Your task to perform on an android device: Search for vegetarian restaurants on Maps Image 0: 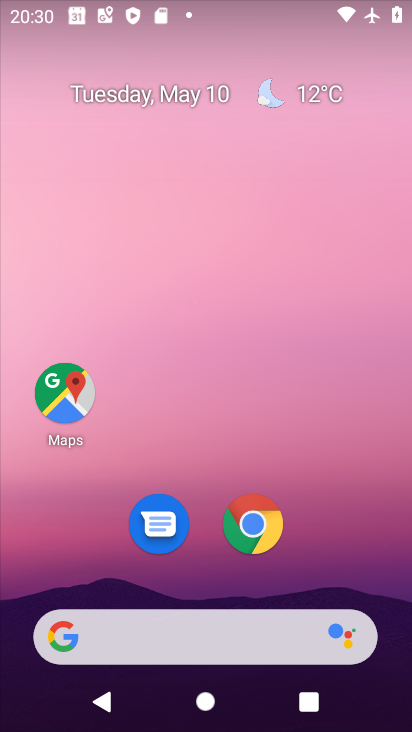
Step 0: click (54, 410)
Your task to perform on an android device: Search for vegetarian restaurants on Maps Image 1: 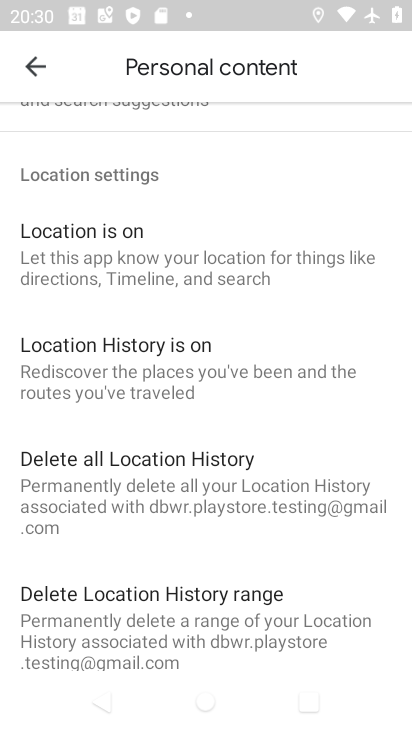
Step 1: click (31, 64)
Your task to perform on an android device: Search for vegetarian restaurants on Maps Image 2: 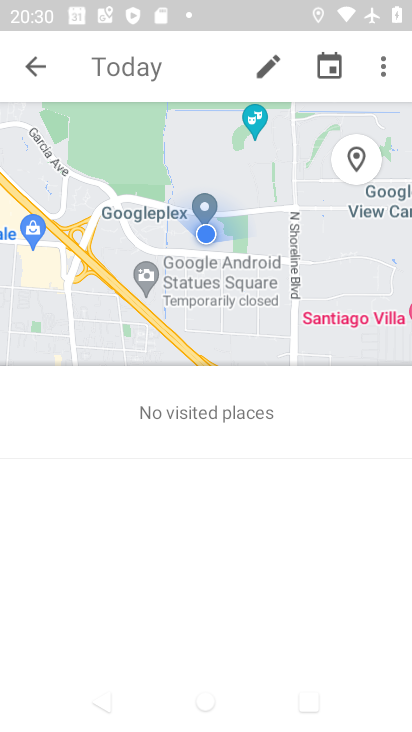
Step 2: click (31, 64)
Your task to perform on an android device: Search for vegetarian restaurants on Maps Image 3: 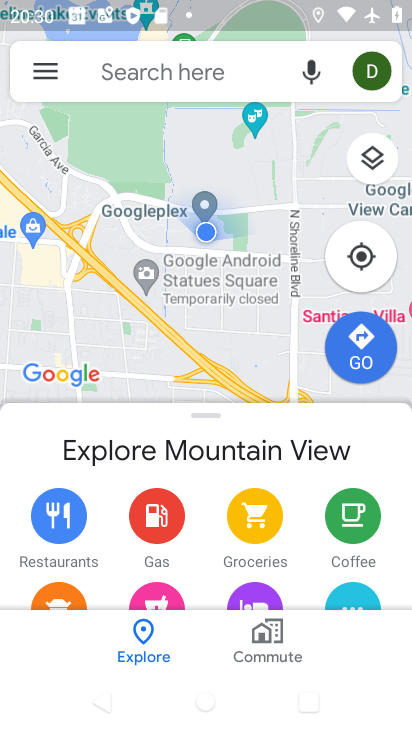
Step 3: click (85, 63)
Your task to perform on an android device: Search for vegetarian restaurants on Maps Image 4: 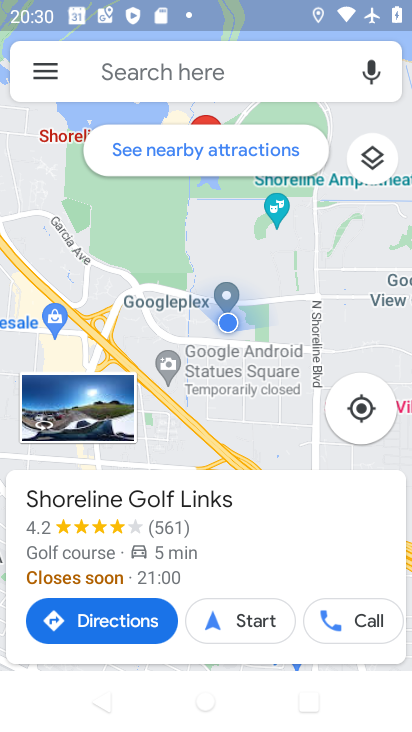
Step 4: click (115, 63)
Your task to perform on an android device: Search for vegetarian restaurants on Maps Image 5: 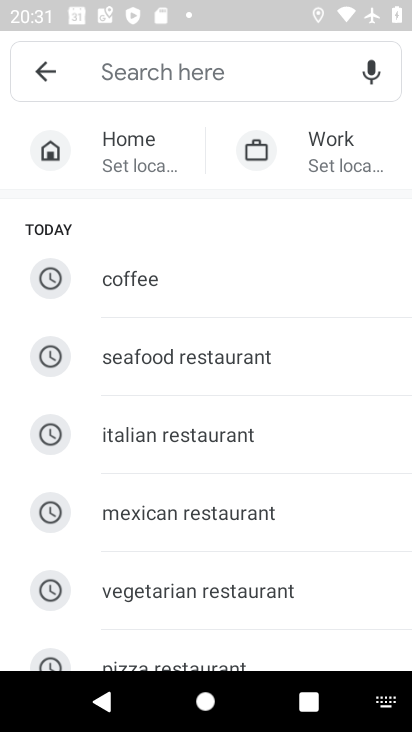
Step 5: click (200, 581)
Your task to perform on an android device: Search for vegetarian restaurants on Maps Image 6: 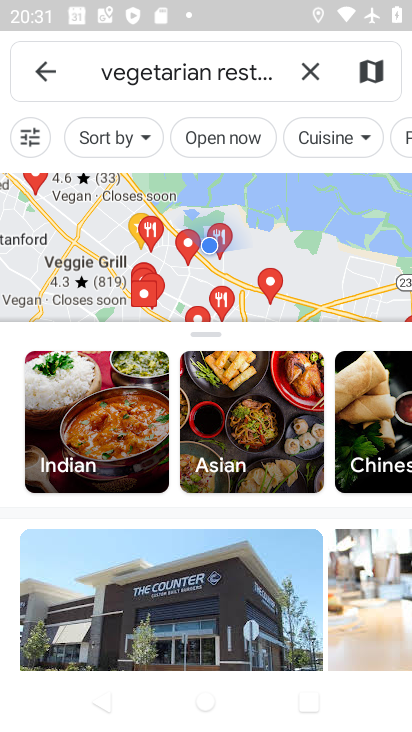
Step 6: task complete